Your task to perform on an android device: What is the capital of Italy? Image 0: 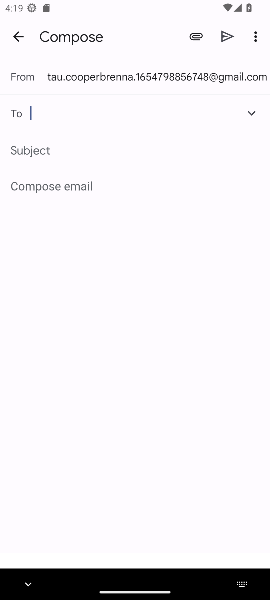
Step 0: press home button
Your task to perform on an android device: What is the capital of Italy? Image 1: 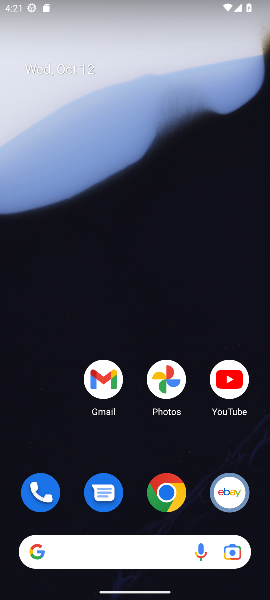
Step 1: click (165, 499)
Your task to perform on an android device: What is the capital of Italy? Image 2: 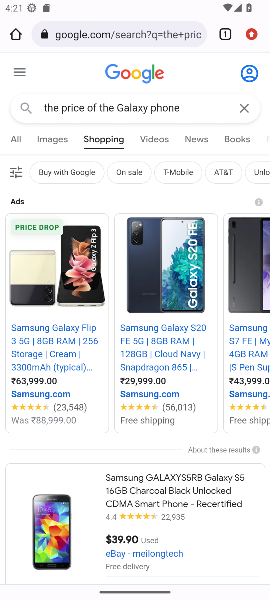
Step 2: click (237, 106)
Your task to perform on an android device: What is the capital of Italy? Image 3: 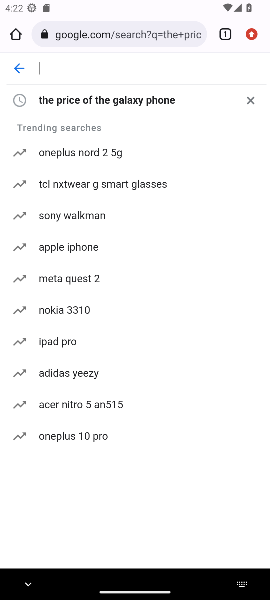
Step 3: click (75, 69)
Your task to perform on an android device: What is the capital of Italy? Image 4: 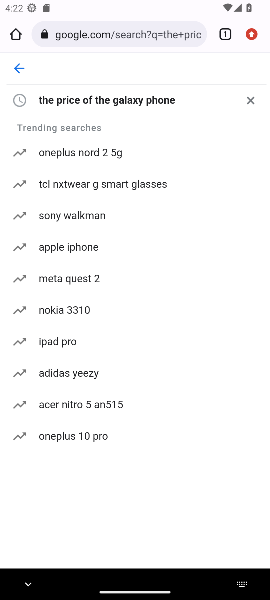
Step 4: type " capital of Italy"
Your task to perform on an android device: What is the capital of Italy? Image 5: 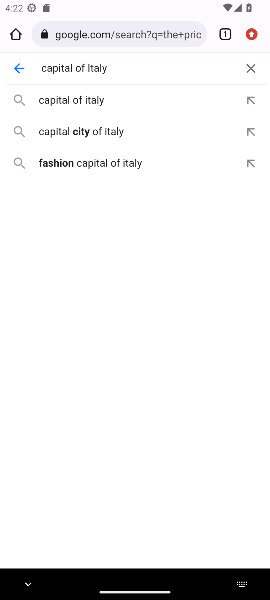
Step 5: click (76, 110)
Your task to perform on an android device: What is the capital of Italy? Image 6: 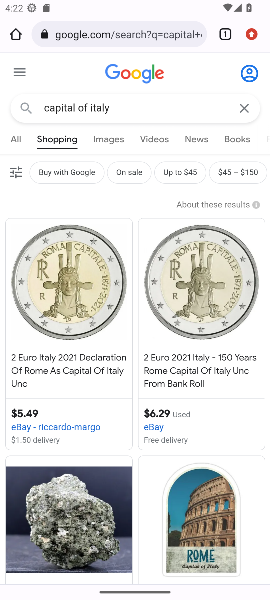
Step 6: click (9, 144)
Your task to perform on an android device: What is the capital of Italy? Image 7: 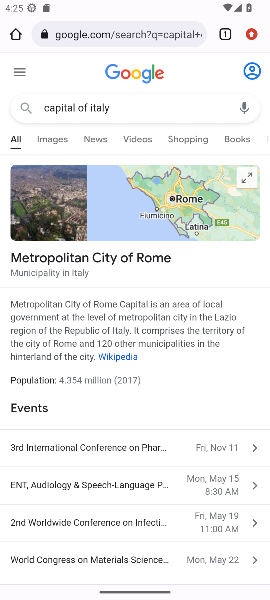
Step 7: click (64, 258)
Your task to perform on an android device: What is the capital of Italy? Image 8: 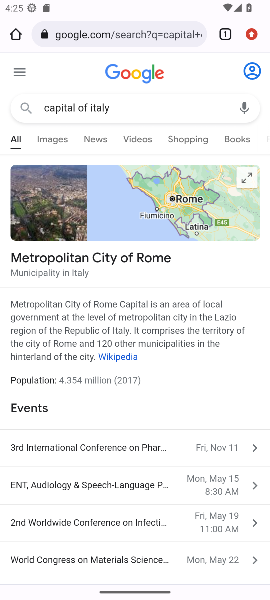
Step 8: task complete